Your task to perform on an android device: What's the weather today? Image 0: 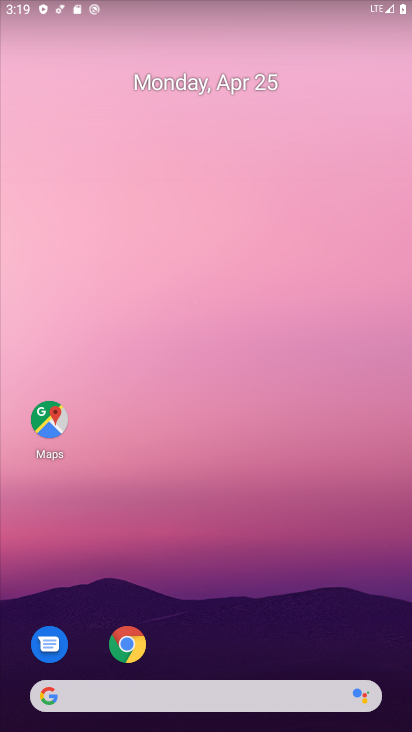
Step 0: drag from (234, 652) to (184, 65)
Your task to perform on an android device: What's the weather today? Image 1: 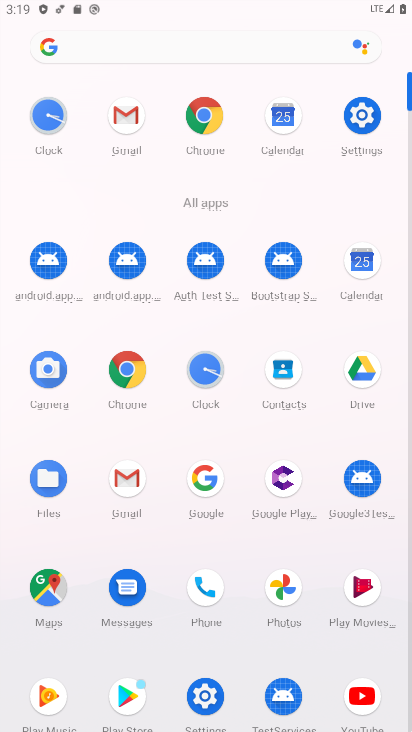
Step 1: click (206, 114)
Your task to perform on an android device: What's the weather today? Image 2: 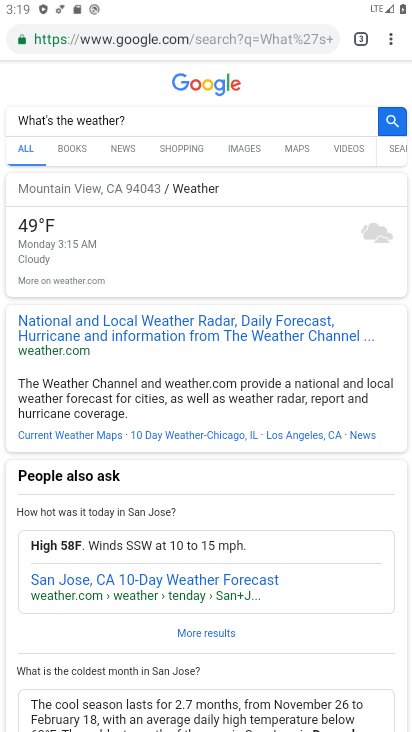
Step 2: task complete